Your task to perform on an android device: remove spam from my inbox in the gmail app Image 0: 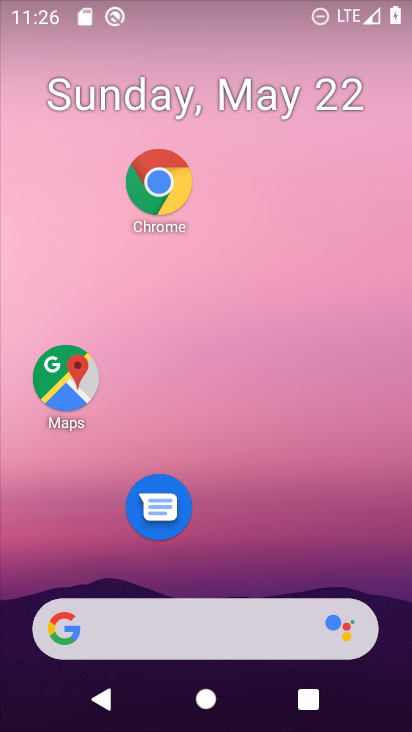
Step 0: drag from (250, 694) to (351, 16)
Your task to perform on an android device: remove spam from my inbox in the gmail app Image 1: 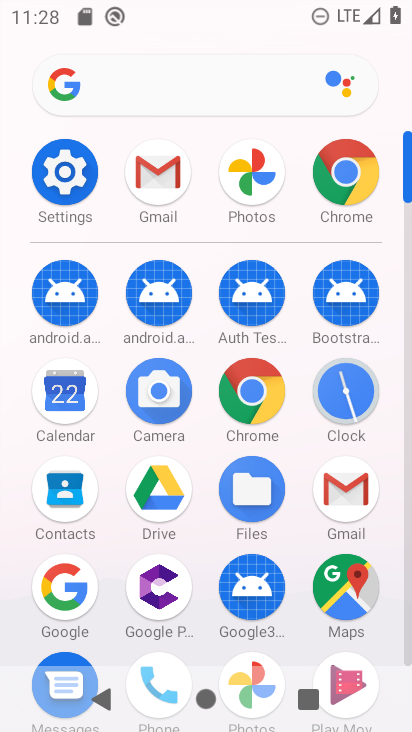
Step 1: click (176, 184)
Your task to perform on an android device: remove spam from my inbox in the gmail app Image 2: 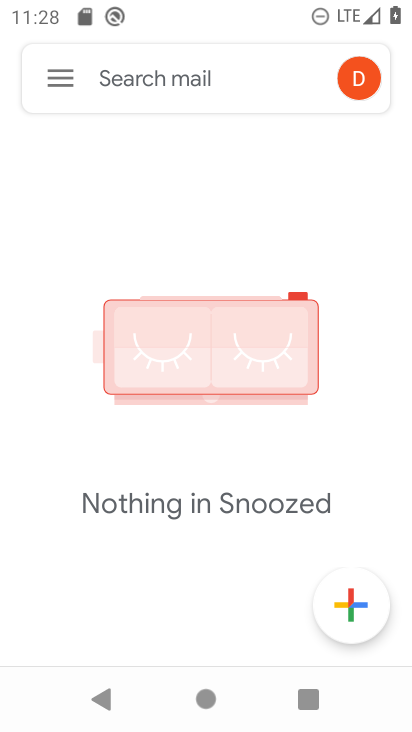
Step 2: click (53, 86)
Your task to perform on an android device: remove spam from my inbox in the gmail app Image 3: 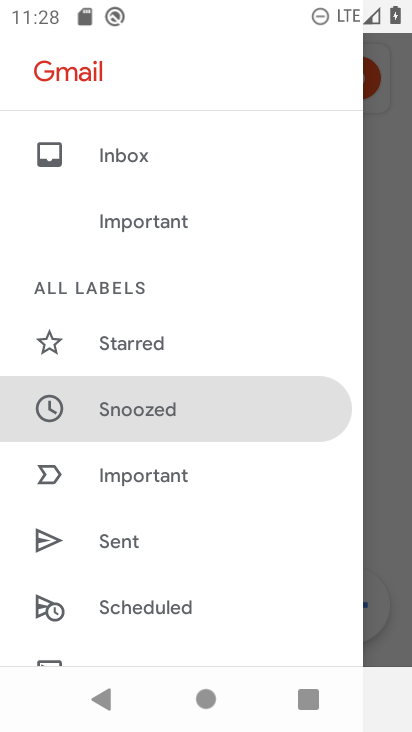
Step 3: drag from (141, 547) to (98, 98)
Your task to perform on an android device: remove spam from my inbox in the gmail app Image 4: 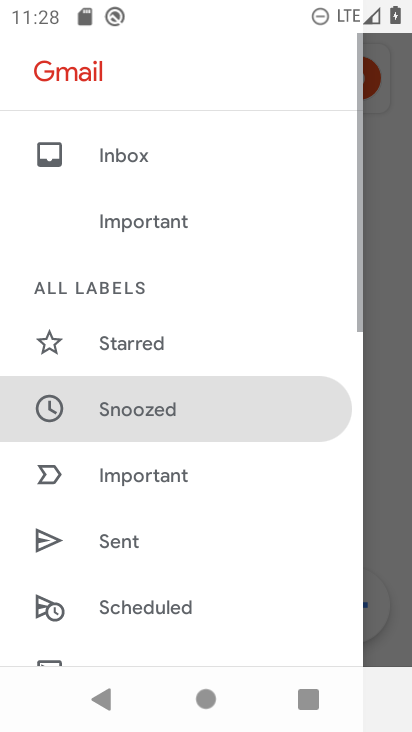
Step 4: drag from (114, 491) to (77, 86)
Your task to perform on an android device: remove spam from my inbox in the gmail app Image 5: 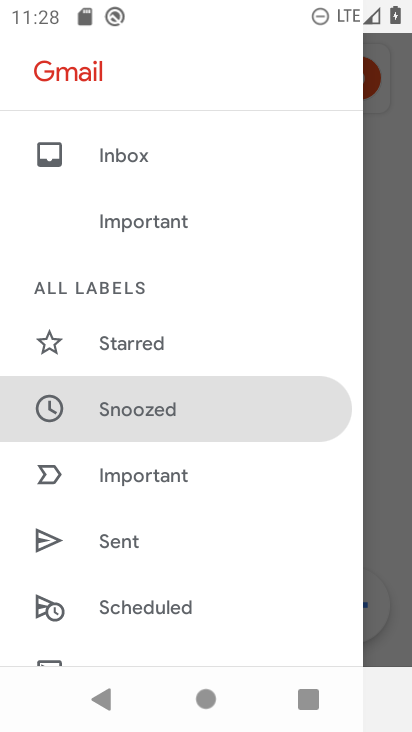
Step 5: drag from (143, 511) to (74, 96)
Your task to perform on an android device: remove spam from my inbox in the gmail app Image 6: 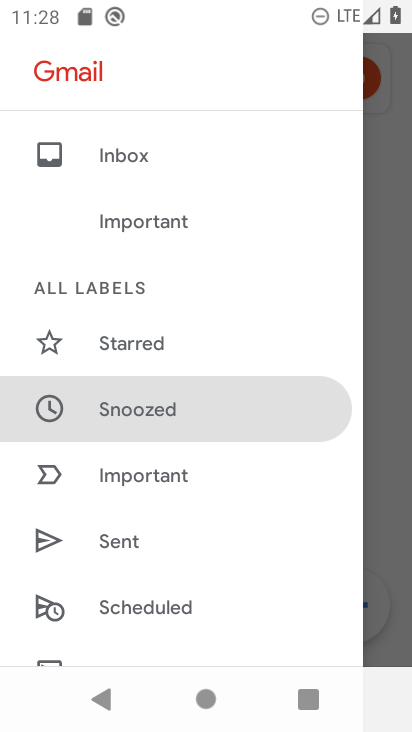
Step 6: drag from (154, 610) to (182, 99)
Your task to perform on an android device: remove spam from my inbox in the gmail app Image 7: 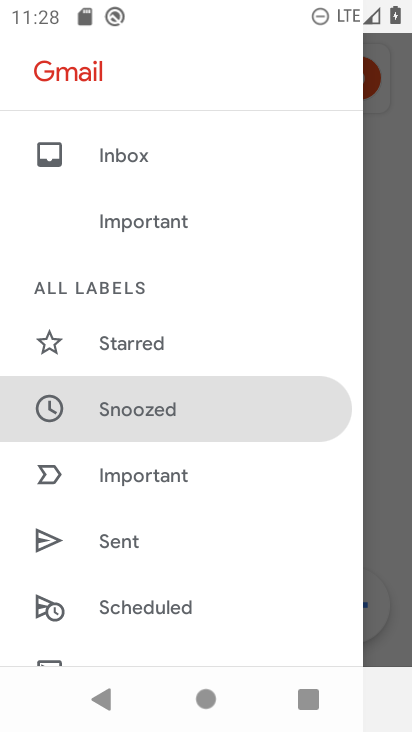
Step 7: drag from (79, 566) to (220, 10)
Your task to perform on an android device: remove spam from my inbox in the gmail app Image 8: 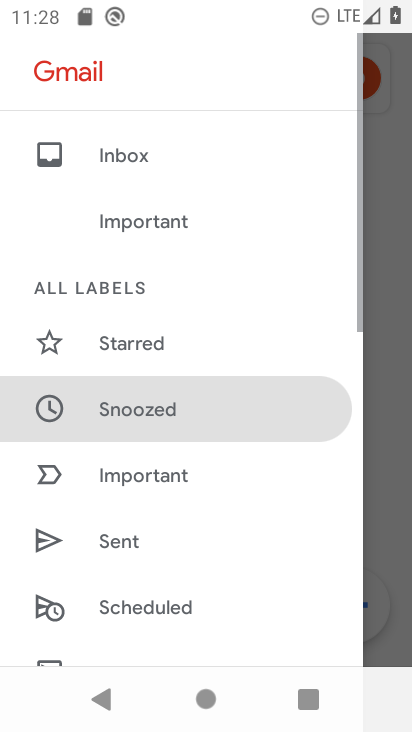
Step 8: drag from (120, 561) to (102, 27)
Your task to perform on an android device: remove spam from my inbox in the gmail app Image 9: 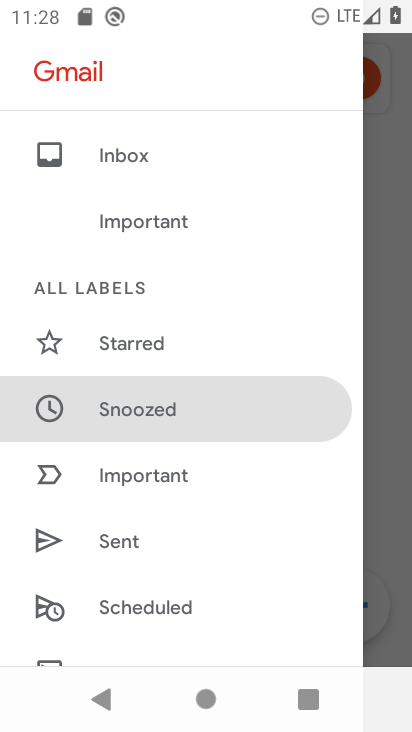
Step 9: drag from (167, 506) to (154, 35)
Your task to perform on an android device: remove spam from my inbox in the gmail app Image 10: 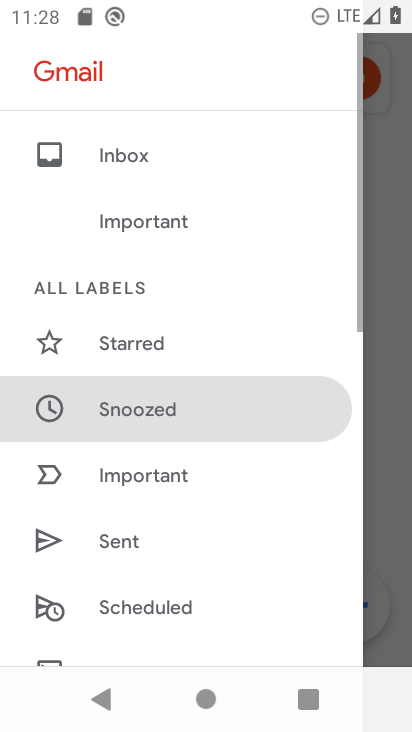
Step 10: drag from (166, 478) to (127, 3)
Your task to perform on an android device: remove spam from my inbox in the gmail app Image 11: 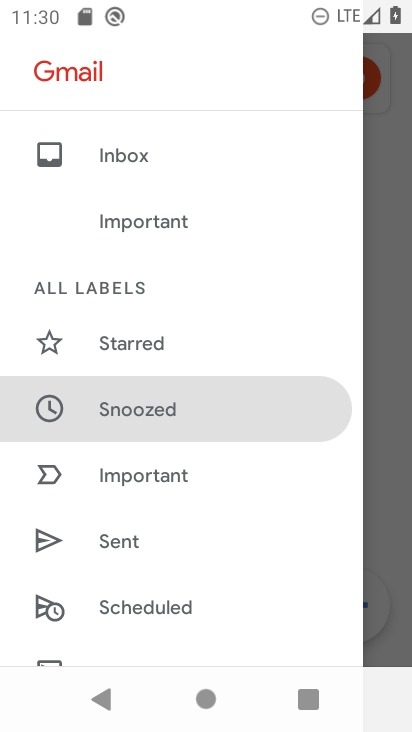
Step 11: click (184, 16)
Your task to perform on an android device: remove spam from my inbox in the gmail app Image 12: 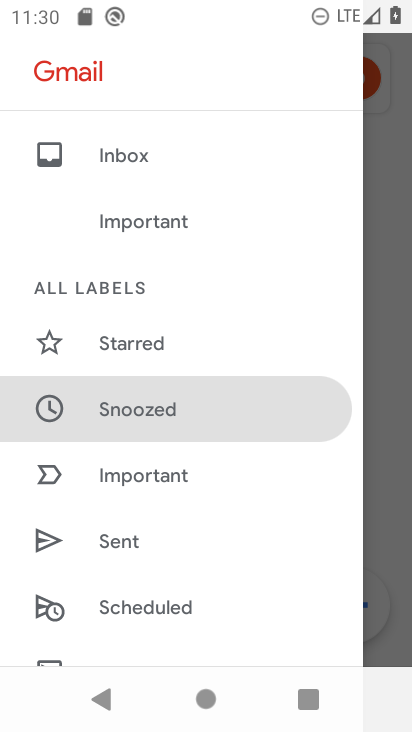
Step 12: drag from (179, 577) to (176, 82)
Your task to perform on an android device: remove spam from my inbox in the gmail app Image 13: 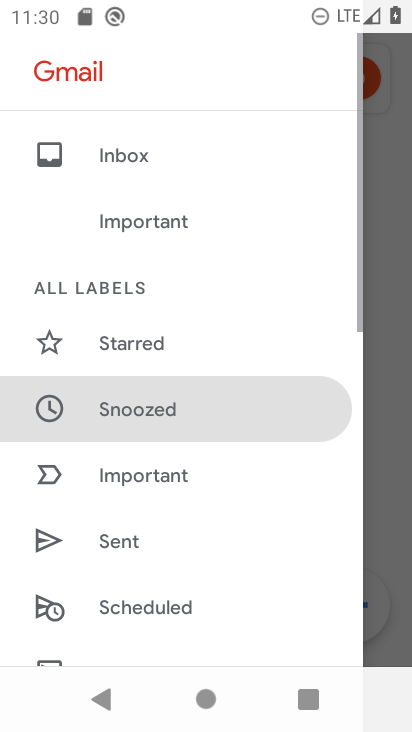
Step 13: drag from (166, 584) to (204, 68)
Your task to perform on an android device: remove spam from my inbox in the gmail app Image 14: 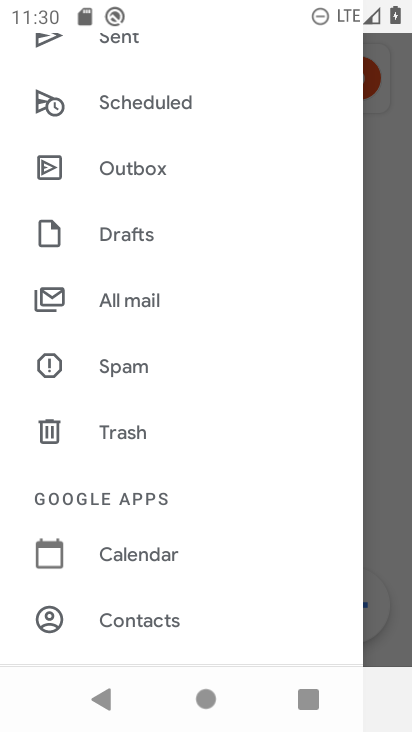
Step 14: click (131, 372)
Your task to perform on an android device: remove spam from my inbox in the gmail app Image 15: 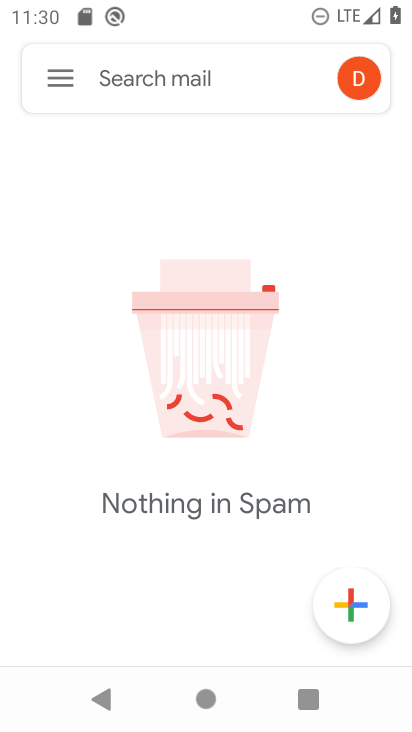
Step 15: task complete